Your task to perform on an android device: turn off smart reply in the gmail app Image 0: 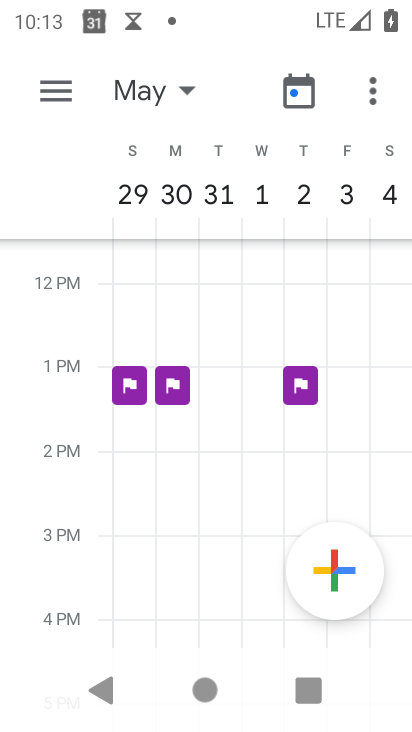
Step 0: drag from (196, 528) to (232, 323)
Your task to perform on an android device: turn off smart reply in the gmail app Image 1: 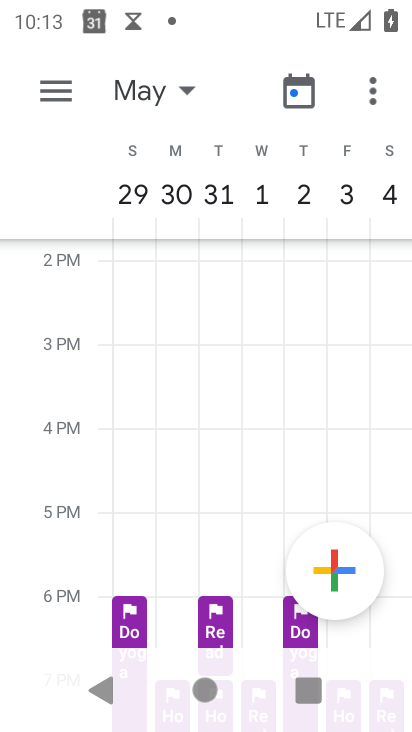
Step 1: drag from (224, 313) to (151, 600)
Your task to perform on an android device: turn off smart reply in the gmail app Image 2: 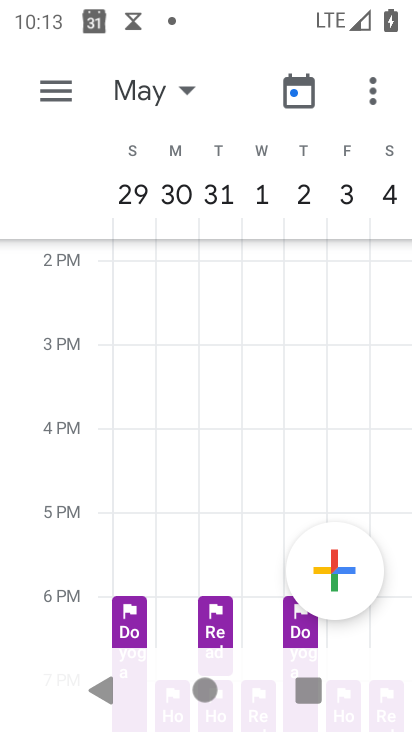
Step 2: press home button
Your task to perform on an android device: turn off smart reply in the gmail app Image 3: 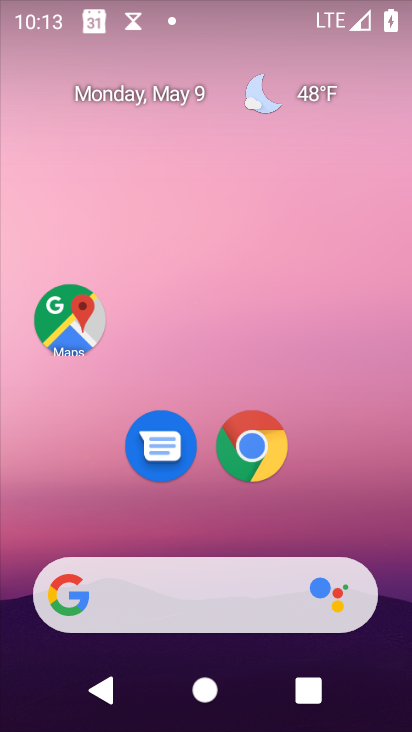
Step 3: drag from (289, 539) to (289, 118)
Your task to perform on an android device: turn off smart reply in the gmail app Image 4: 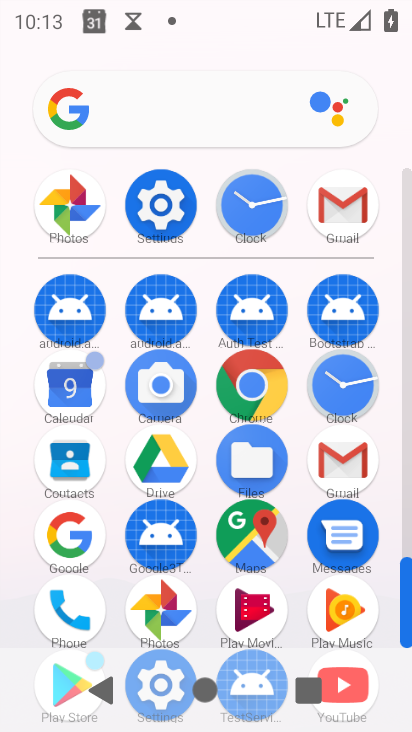
Step 4: click (346, 191)
Your task to perform on an android device: turn off smart reply in the gmail app Image 5: 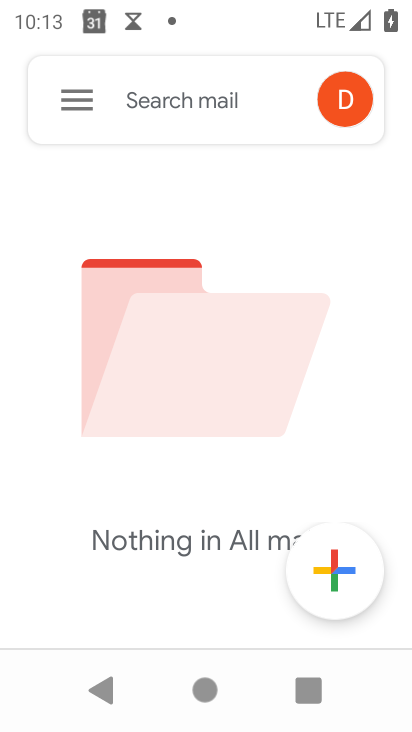
Step 5: click (72, 98)
Your task to perform on an android device: turn off smart reply in the gmail app Image 6: 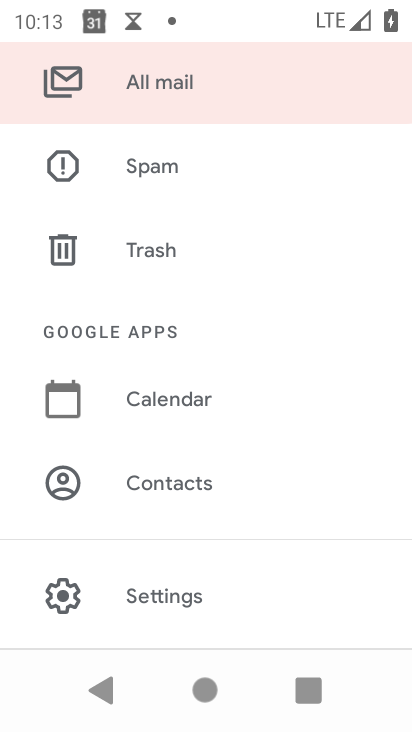
Step 6: click (192, 594)
Your task to perform on an android device: turn off smart reply in the gmail app Image 7: 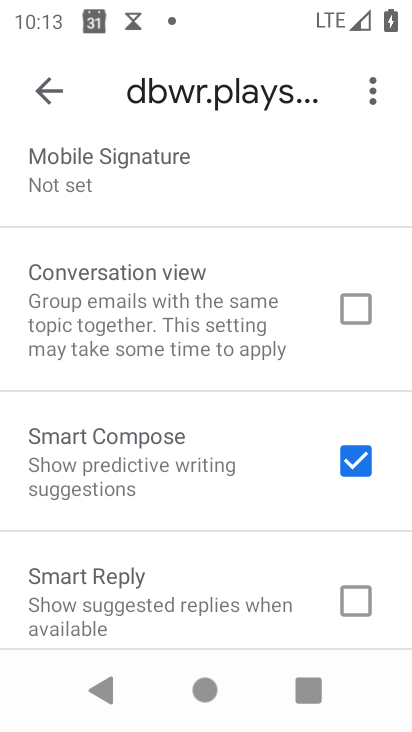
Step 7: task complete